Your task to perform on an android device: Open the stopwatch Image 0: 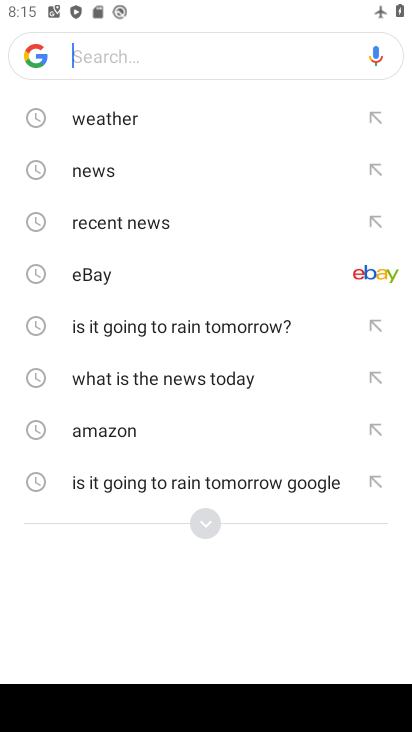
Step 0: press back button
Your task to perform on an android device: Open the stopwatch Image 1: 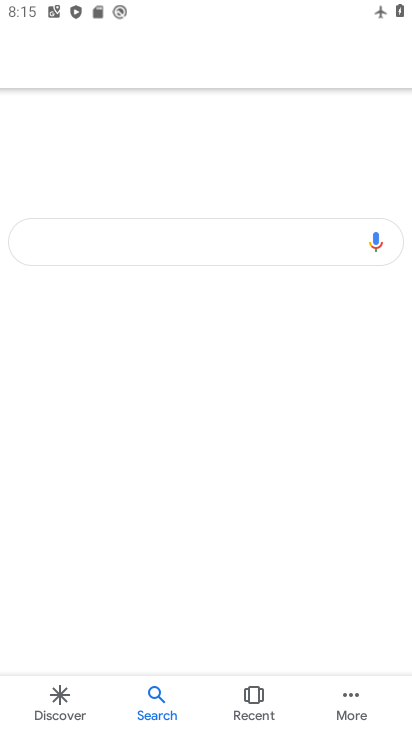
Step 1: press back button
Your task to perform on an android device: Open the stopwatch Image 2: 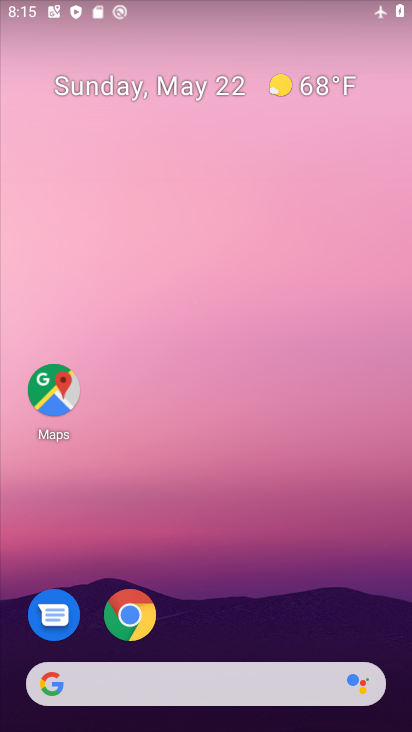
Step 2: drag from (253, 649) to (256, 20)
Your task to perform on an android device: Open the stopwatch Image 3: 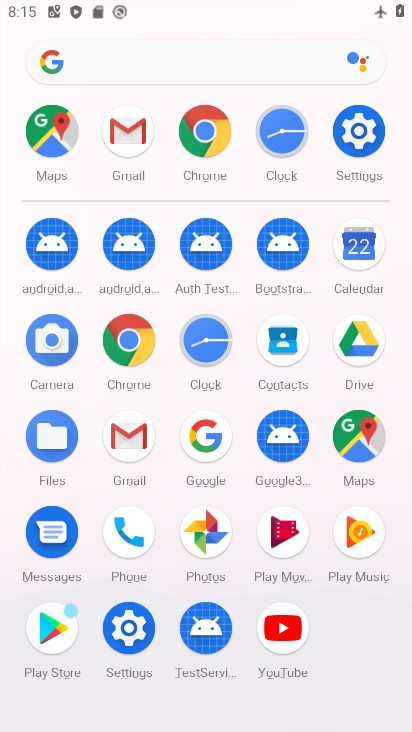
Step 3: click (200, 343)
Your task to perform on an android device: Open the stopwatch Image 4: 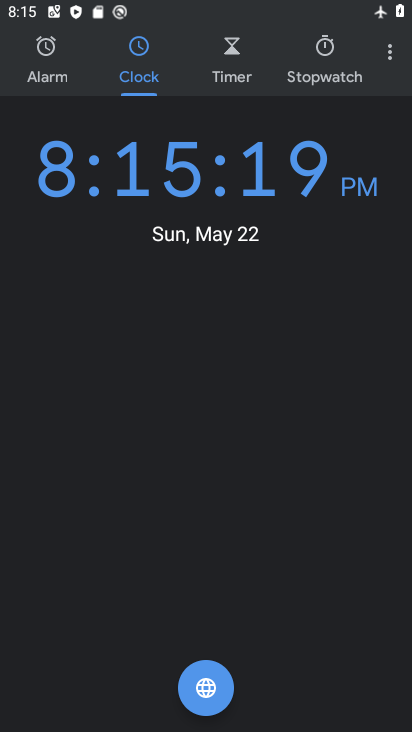
Step 4: click (316, 56)
Your task to perform on an android device: Open the stopwatch Image 5: 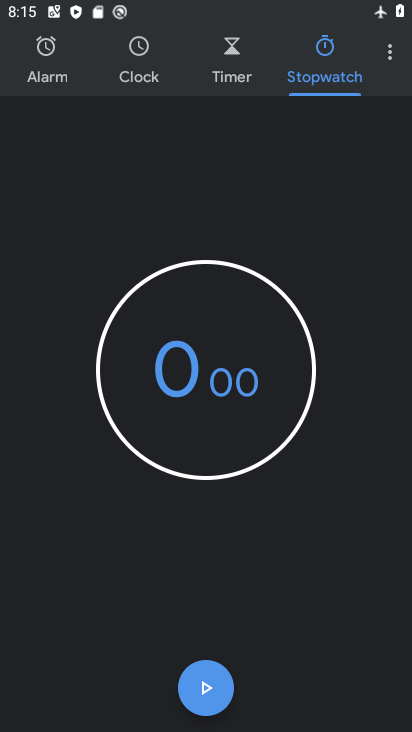
Step 5: task complete